Your task to perform on an android device: turn notification dots on Image 0: 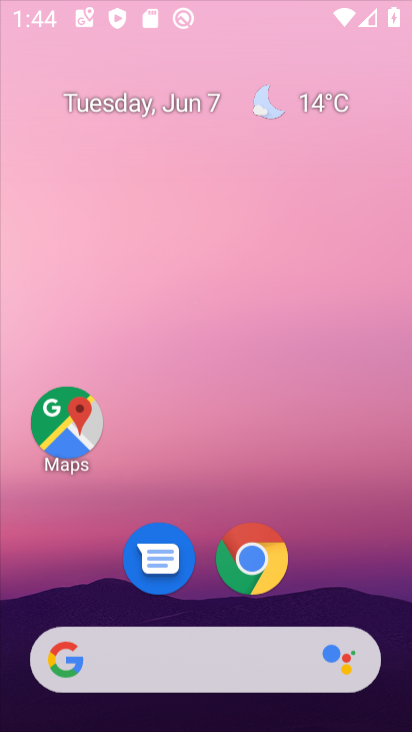
Step 0: press home button
Your task to perform on an android device: turn notification dots on Image 1: 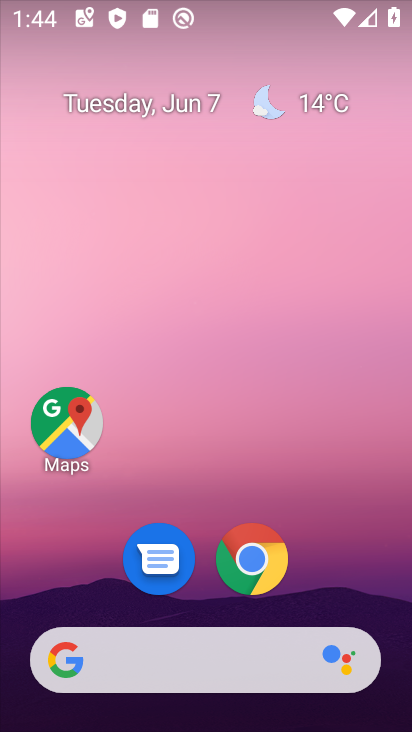
Step 1: drag from (350, 590) to (248, 2)
Your task to perform on an android device: turn notification dots on Image 2: 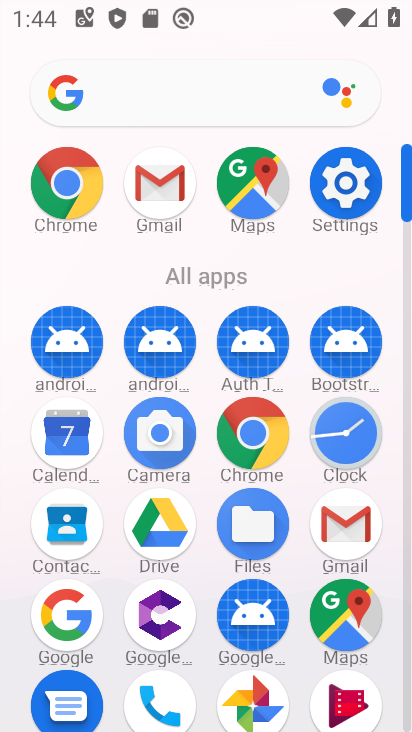
Step 2: click (345, 181)
Your task to perform on an android device: turn notification dots on Image 3: 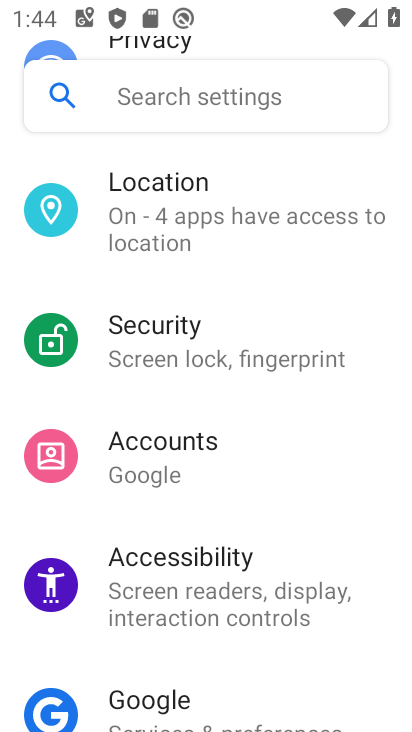
Step 3: drag from (321, 189) to (293, 578)
Your task to perform on an android device: turn notification dots on Image 4: 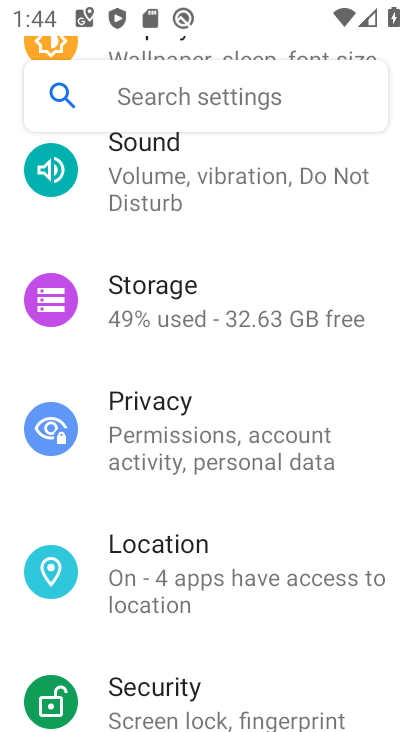
Step 4: drag from (298, 230) to (305, 578)
Your task to perform on an android device: turn notification dots on Image 5: 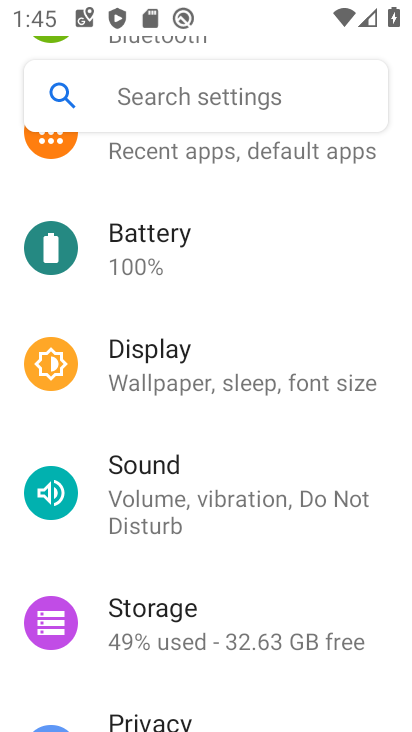
Step 5: drag from (272, 213) to (266, 544)
Your task to perform on an android device: turn notification dots on Image 6: 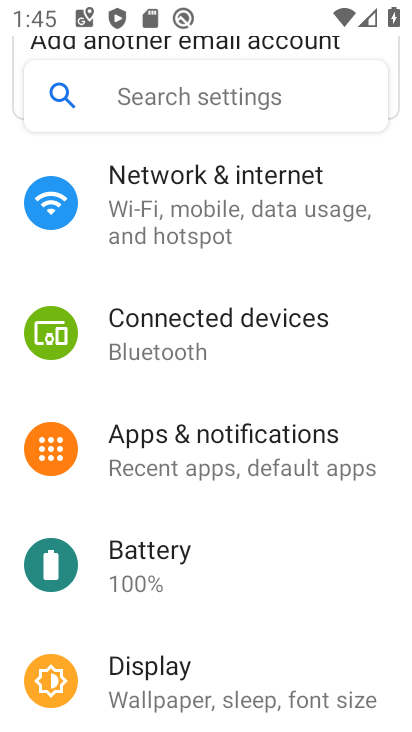
Step 6: click (231, 380)
Your task to perform on an android device: turn notification dots on Image 7: 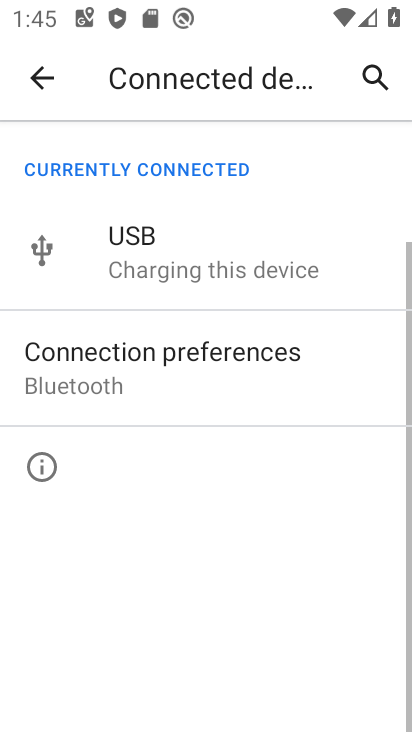
Step 7: click (41, 82)
Your task to perform on an android device: turn notification dots on Image 8: 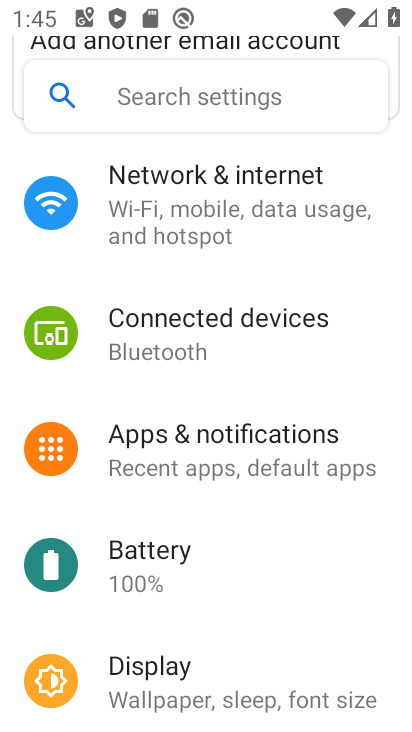
Step 8: click (160, 442)
Your task to perform on an android device: turn notification dots on Image 9: 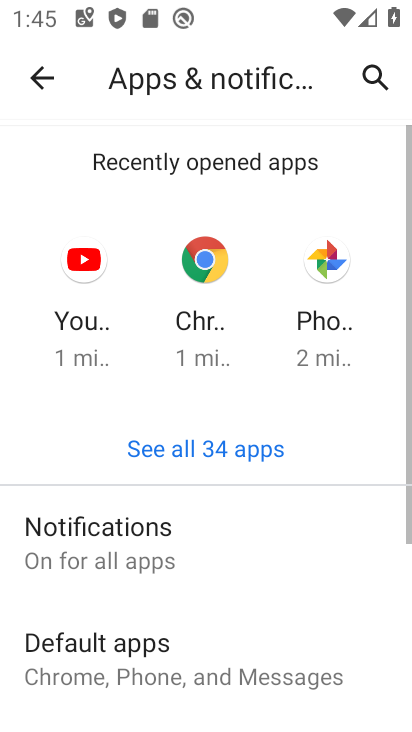
Step 9: drag from (255, 540) to (261, 255)
Your task to perform on an android device: turn notification dots on Image 10: 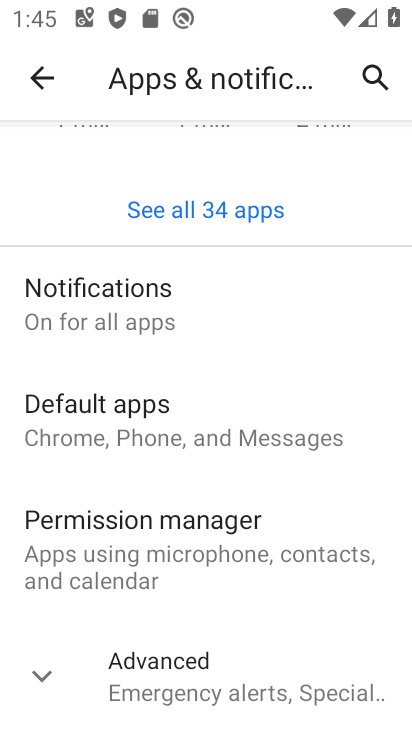
Step 10: click (211, 406)
Your task to perform on an android device: turn notification dots on Image 11: 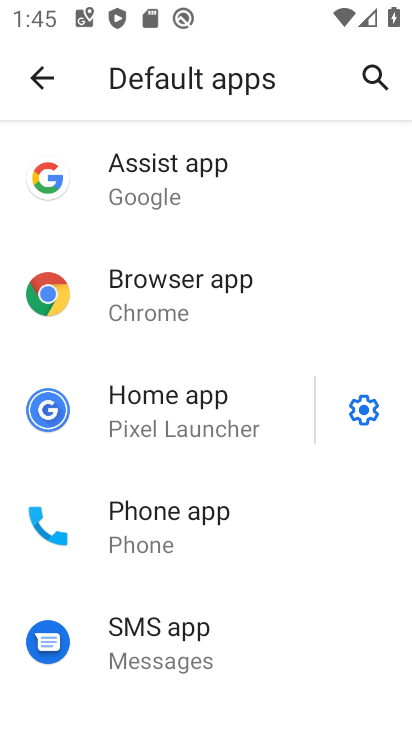
Step 11: click (33, 73)
Your task to perform on an android device: turn notification dots on Image 12: 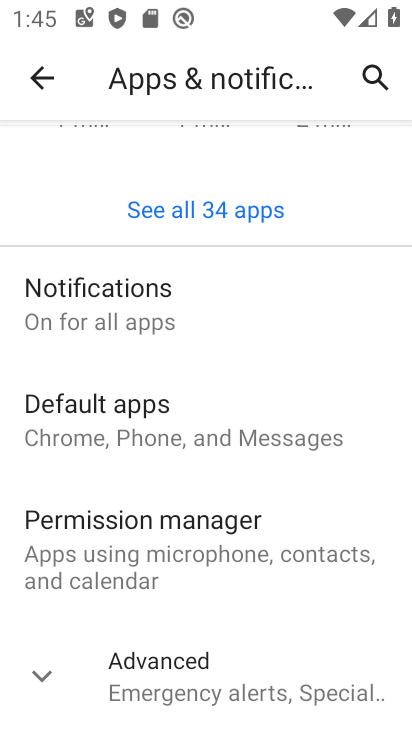
Step 12: click (48, 676)
Your task to perform on an android device: turn notification dots on Image 13: 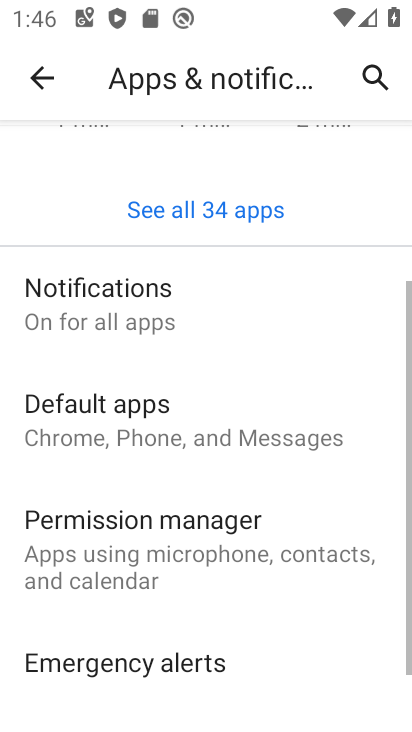
Step 13: drag from (284, 598) to (306, 270)
Your task to perform on an android device: turn notification dots on Image 14: 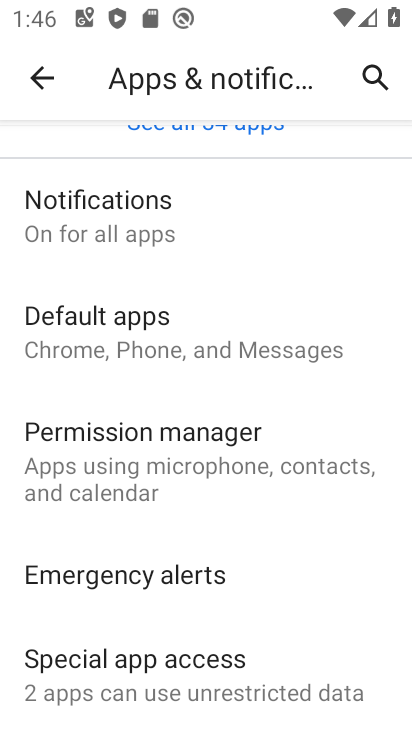
Step 14: click (205, 208)
Your task to perform on an android device: turn notification dots on Image 15: 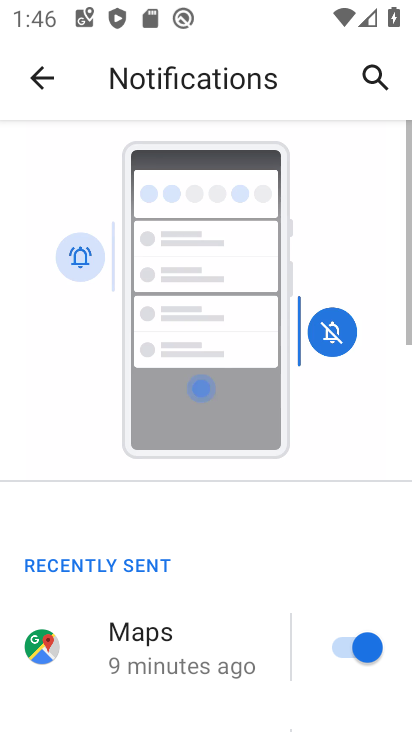
Step 15: drag from (249, 634) to (330, 147)
Your task to perform on an android device: turn notification dots on Image 16: 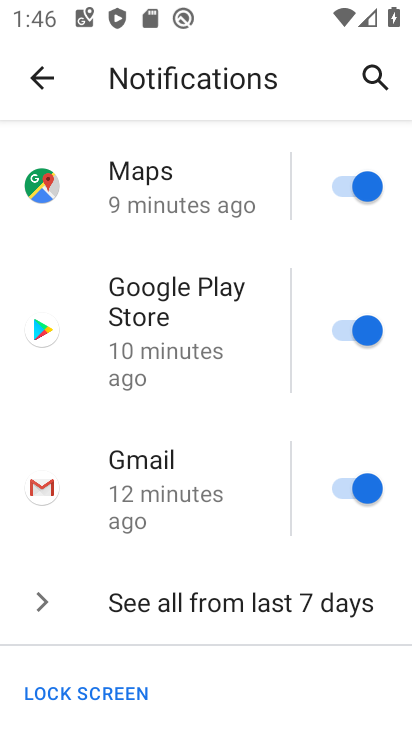
Step 16: drag from (197, 640) to (205, 199)
Your task to perform on an android device: turn notification dots on Image 17: 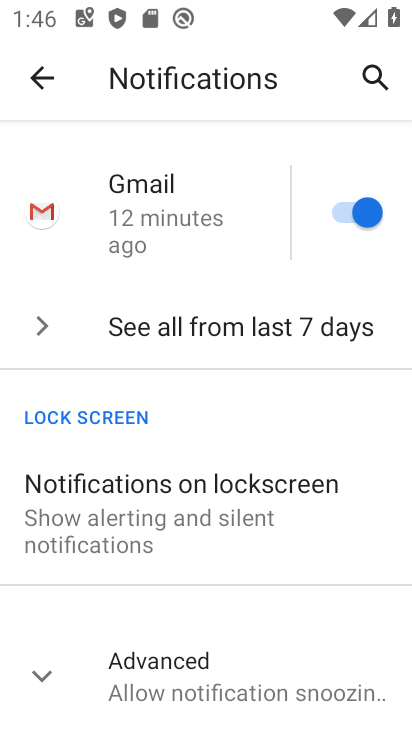
Step 17: click (79, 670)
Your task to perform on an android device: turn notification dots on Image 18: 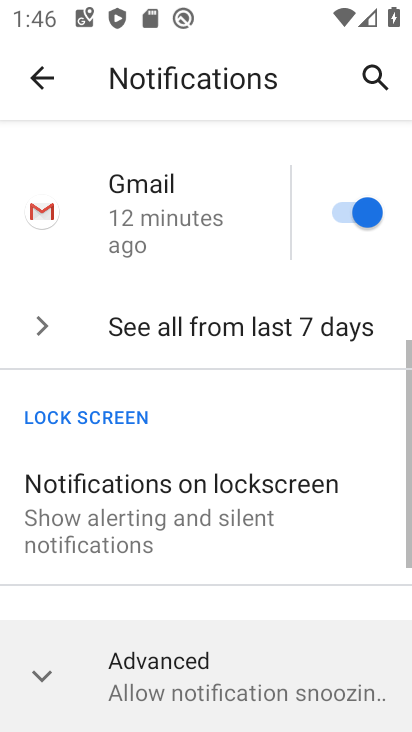
Step 18: task complete